Your task to perform on an android device: What's the weather going to be this weekend? Image 0: 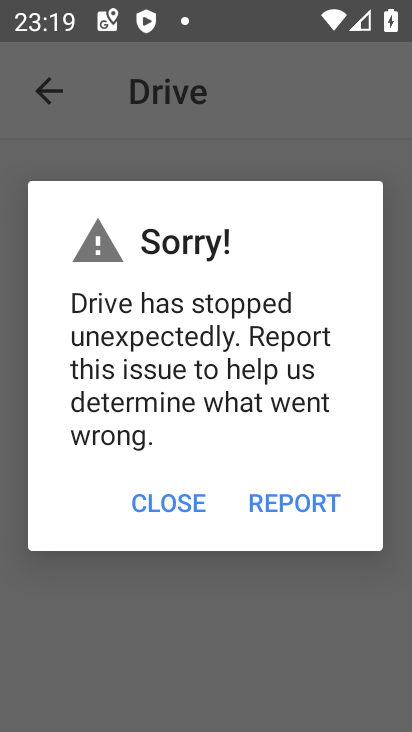
Step 0: press home button
Your task to perform on an android device: What's the weather going to be this weekend? Image 1: 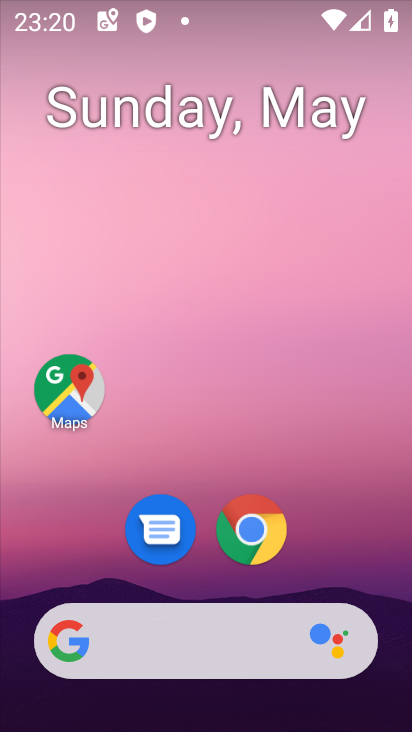
Step 1: click (202, 642)
Your task to perform on an android device: What's the weather going to be this weekend? Image 2: 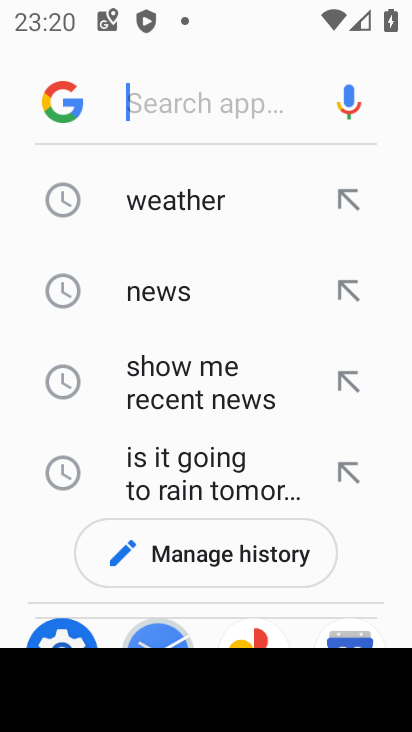
Step 2: click (229, 190)
Your task to perform on an android device: What's the weather going to be this weekend? Image 3: 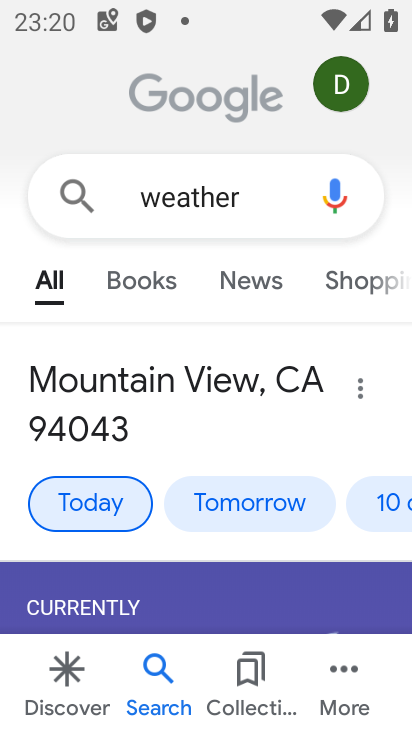
Step 3: click (366, 503)
Your task to perform on an android device: What's the weather going to be this weekend? Image 4: 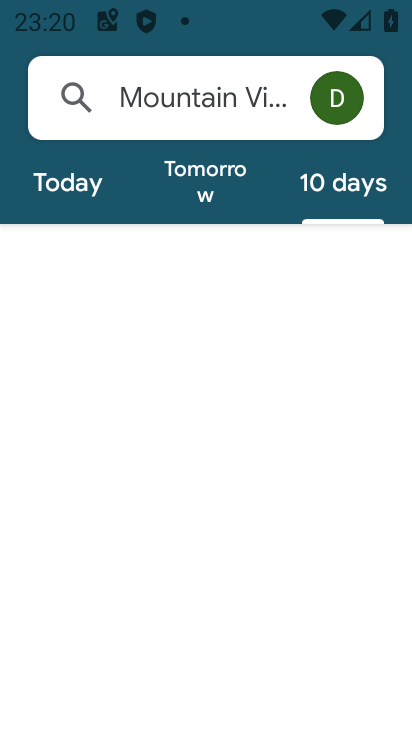
Step 4: task complete